Your task to perform on an android device: Go to Wikipedia Image 0: 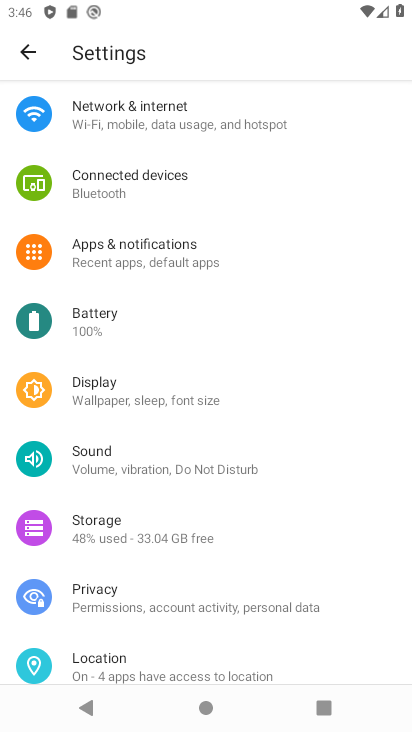
Step 0: press home button
Your task to perform on an android device: Go to Wikipedia Image 1: 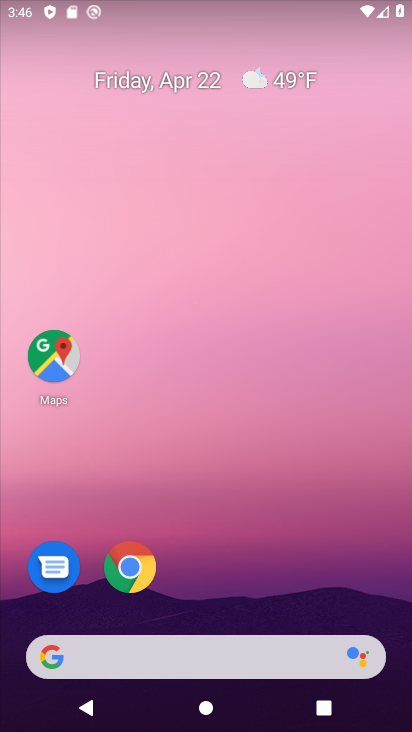
Step 1: click (133, 570)
Your task to perform on an android device: Go to Wikipedia Image 2: 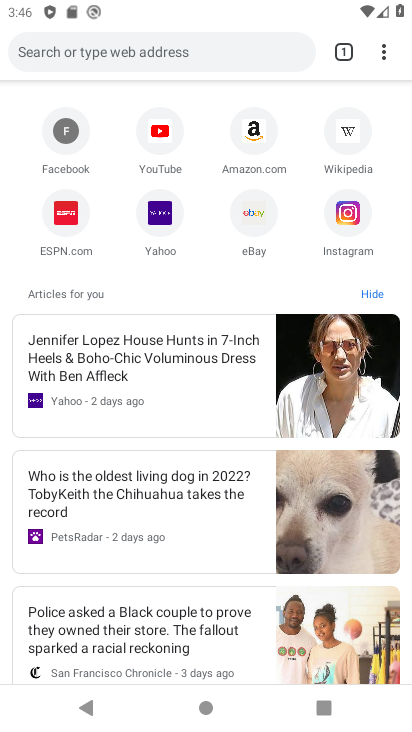
Step 2: click (351, 137)
Your task to perform on an android device: Go to Wikipedia Image 3: 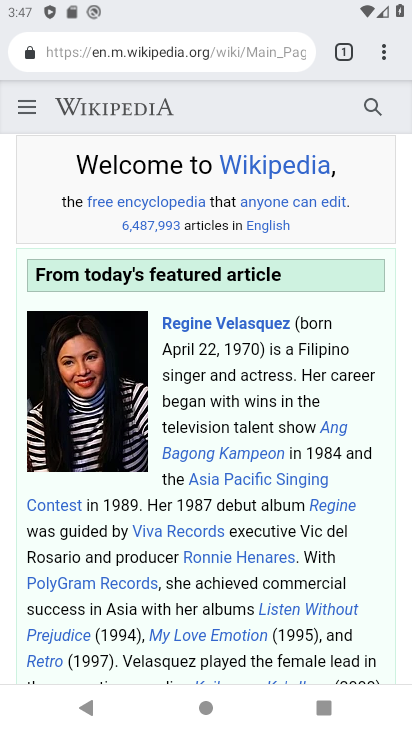
Step 3: task complete